Your task to perform on an android device: open device folders in google photos Image 0: 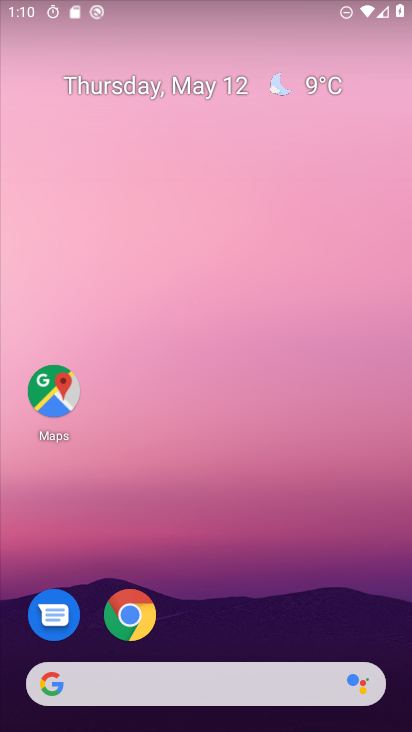
Step 0: drag from (283, 589) to (274, 13)
Your task to perform on an android device: open device folders in google photos Image 1: 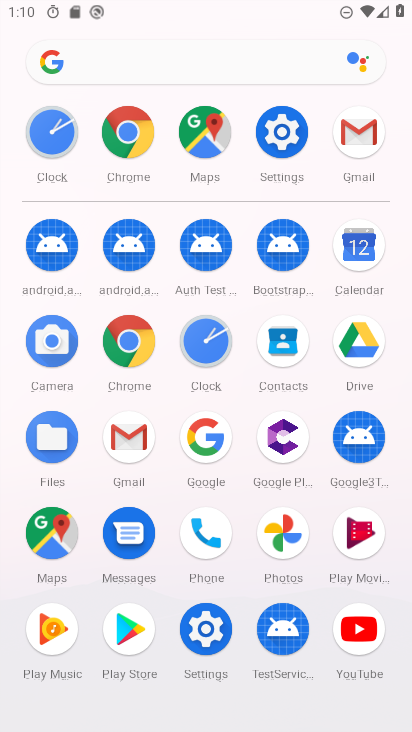
Step 1: click (291, 529)
Your task to perform on an android device: open device folders in google photos Image 2: 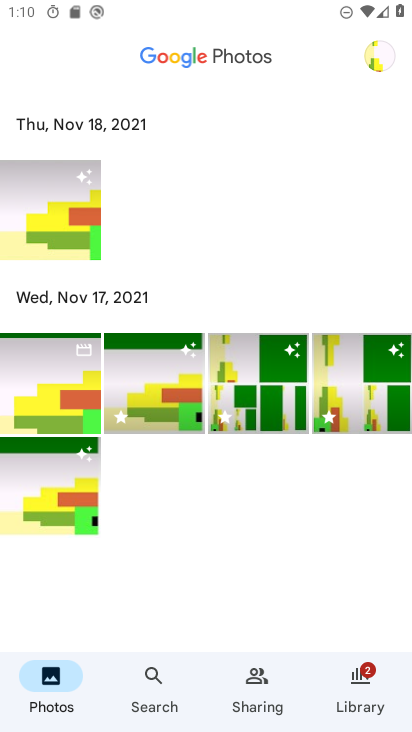
Step 2: click (383, 48)
Your task to perform on an android device: open device folders in google photos Image 3: 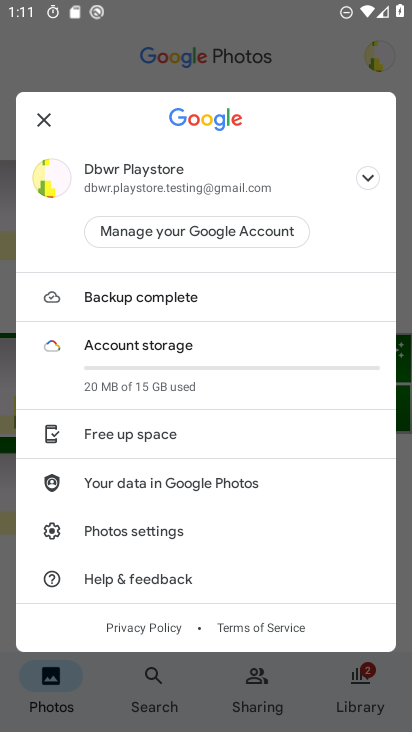
Step 3: click (36, 118)
Your task to perform on an android device: open device folders in google photos Image 4: 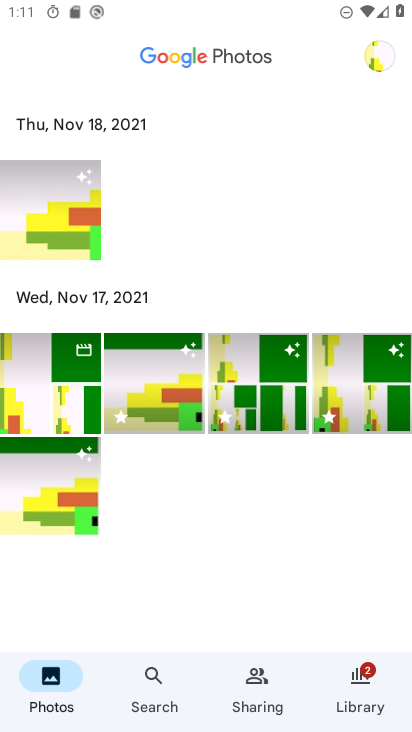
Step 4: task complete